Your task to perform on an android device: Open Google Maps and go to "Timeline" Image 0: 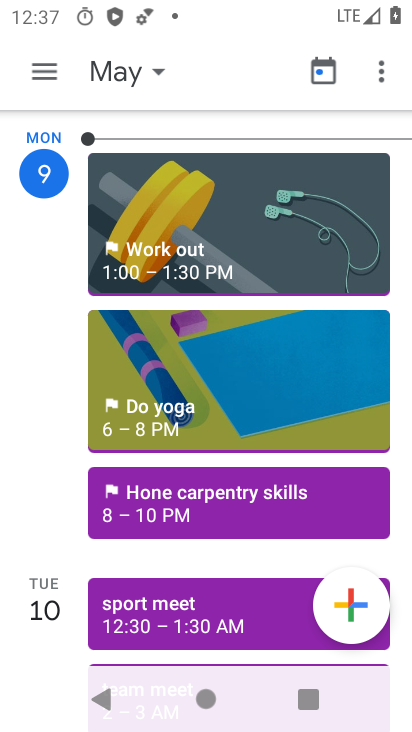
Step 0: press home button
Your task to perform on an android device: Open Google Maps and go to "Timeline" Image 1: 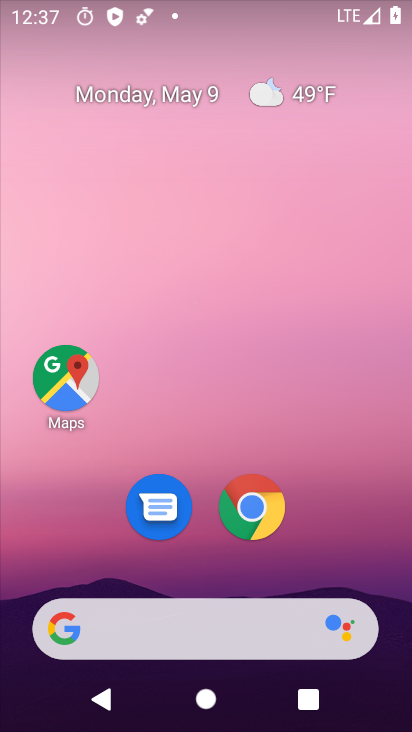
Step 1: drag from (223, 717) to (200, 234)
Your task to perform on an android device: Open Google Maps and go to "Timeline" Image 2: 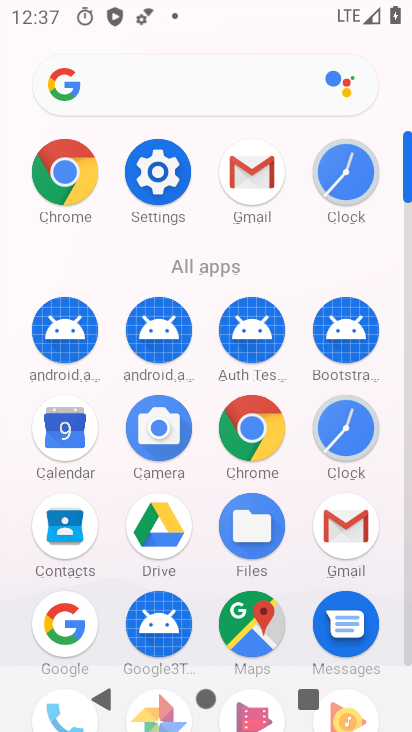
Step 2: click (249, 631)
Your task to perform on an android device: Open Google Maps and go to "Timeline" Image 3: 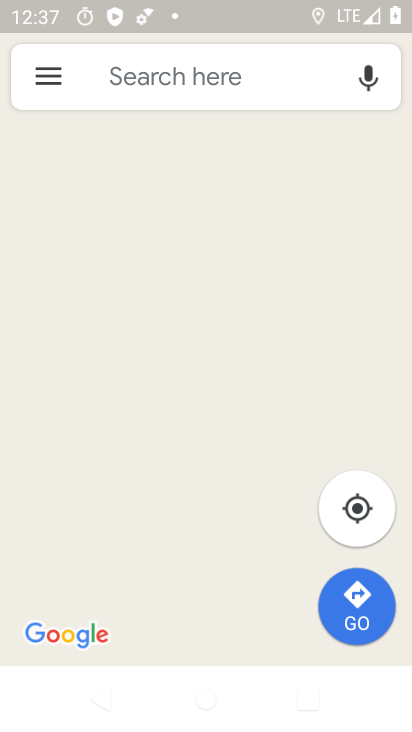
Step 3: click (51, 82)
Your task to perform on an android device: Open Google Maps and go to "Timeline" Image 4: 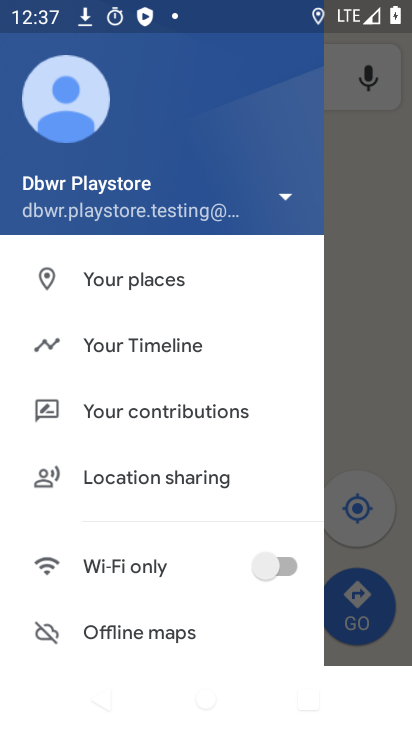
Step 4: click (134, 345)
Your task to perform on an android device: Open Google Maps and go to "Timeline" Image 5: 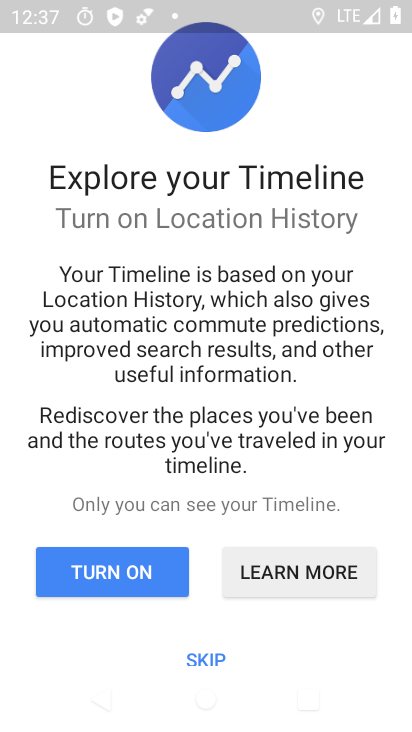
Step 5: click (208, 654)
Your task to perform on an android device: Open Google Maps and go to "Timeline" Image 6: 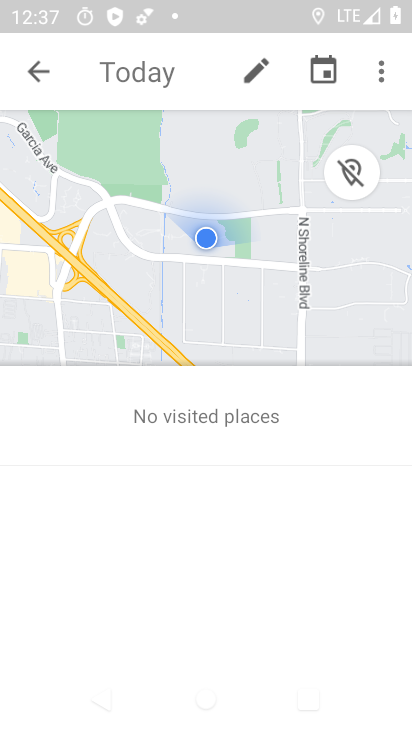
Step 6: task complete